Your task to perform on an android device: Set the phone to "Do not disturb". Image 0: 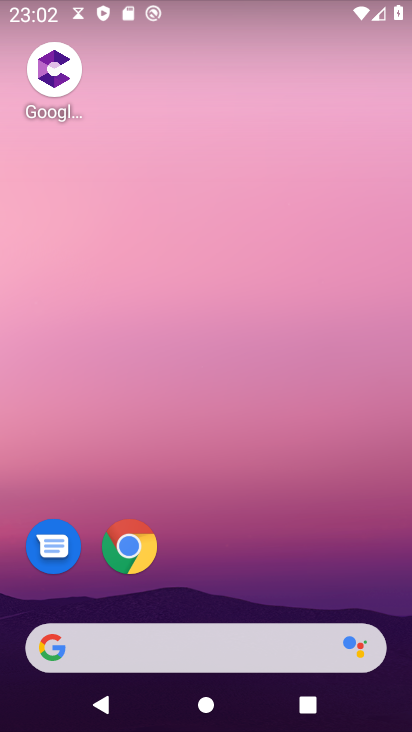
Step 0: drag from (231, 444) to (227, 49)
Your task to perform on an android device: Set the phone to "Do not disturb". Image 1: 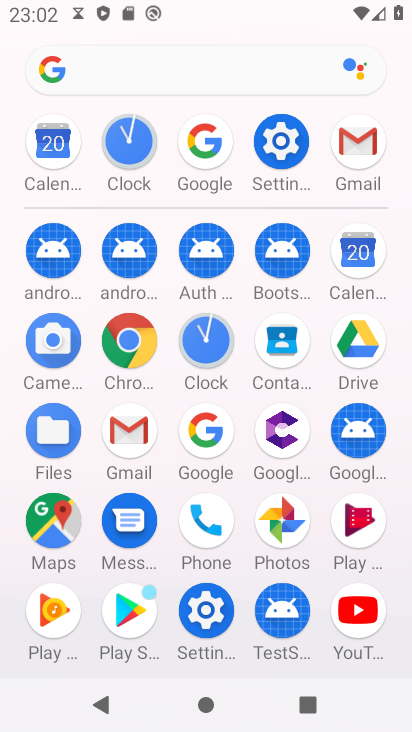
Step 1: click (289, 137)
Your task to perform on an android device: Set the phone to "Do not disturb". Image 2: 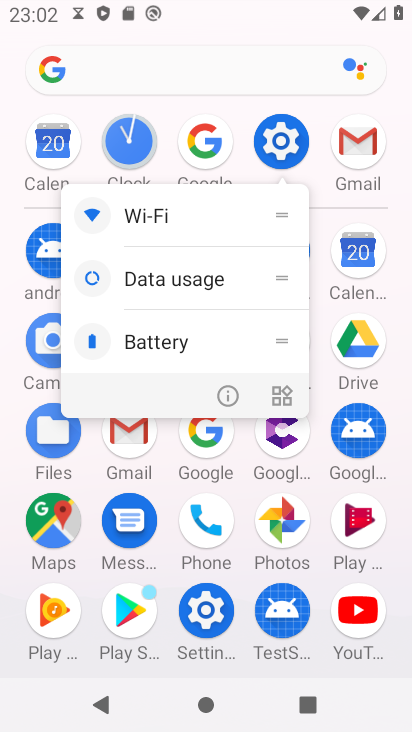
Step 2: click (275, 155)
Your task to perform on an android device: Set the phone to "Do not disturb". Image 3: 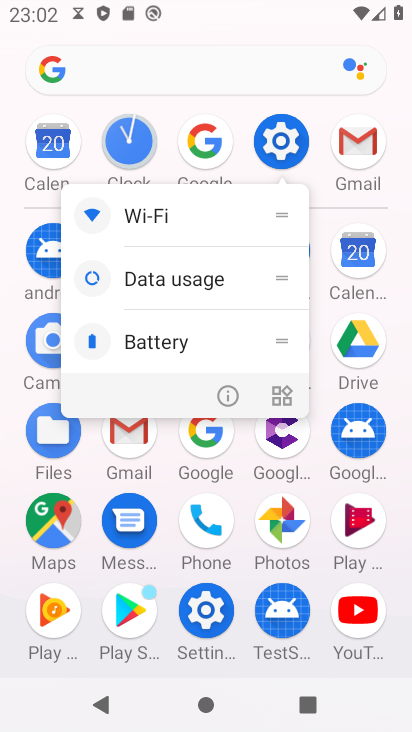
Step 3: click (279, 148)
Your task to perform on an android device: Set the phone to "Do not disturb". Image 4: 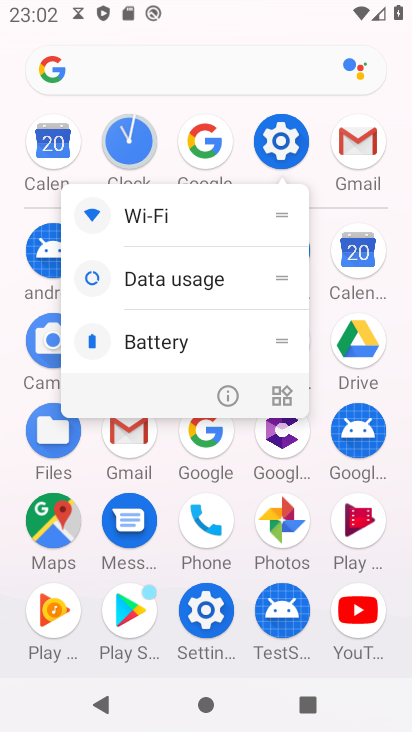
Step 4: click (285, 135)
Your task to perform on an android device: Set the phone to "Do not disturb". Image 5: 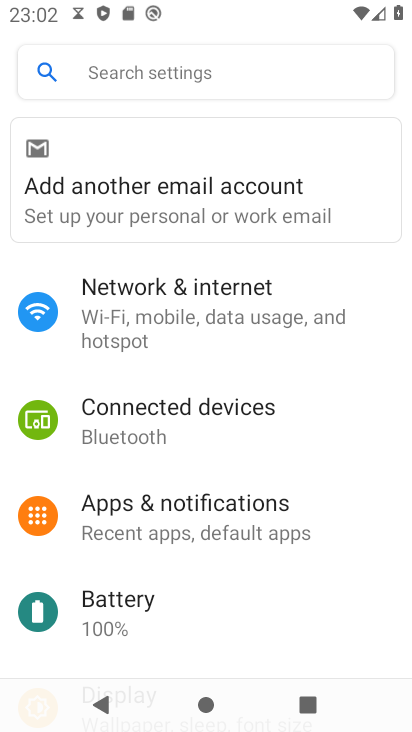
Step 5: drag from (227, 545) to (228, 191)
Your task to perform on an android device: Set the phone to "Do not disturb". Image 6: 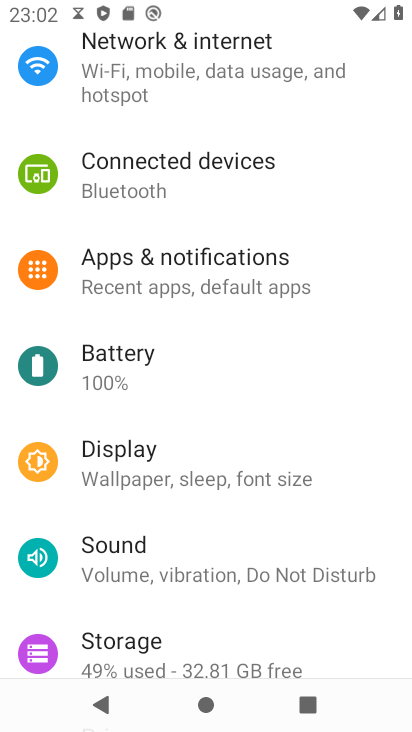
Step 6: click (220, 556)
Your task to perform on an android device: Set the phone to "Do not disturb". Image 7: 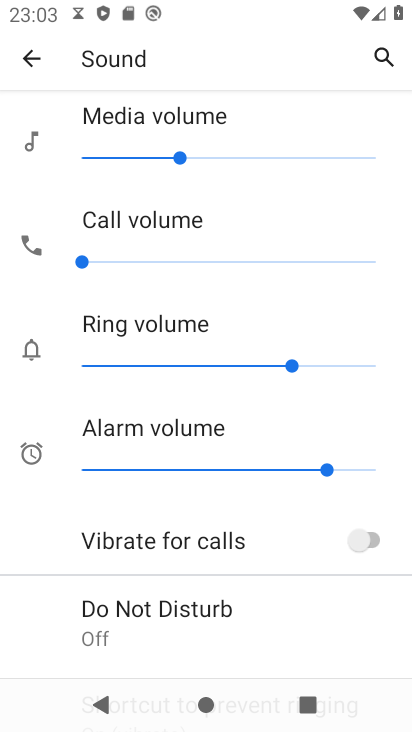
Step 7: click (194, 612)
Your task to perform on an android device: Set the phone to "Do not disturb". Image 8: 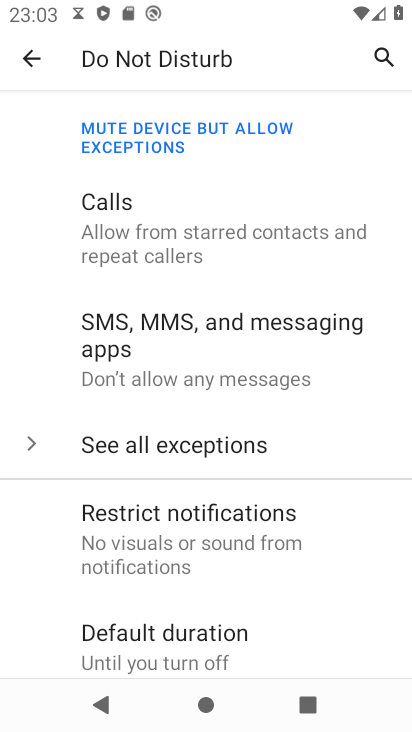
Step 8: drag from (193, 563) to (217, 140)
Your task to perform on an android device: Set the phone to "Do not disturb". Image 9: 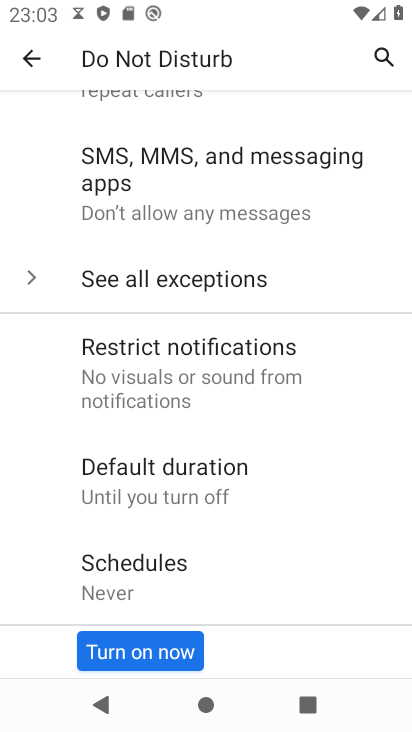
Step 9: click (154, 646)
Your task to perform on an android device: Set the phone to "Do not disturb". Image 10: 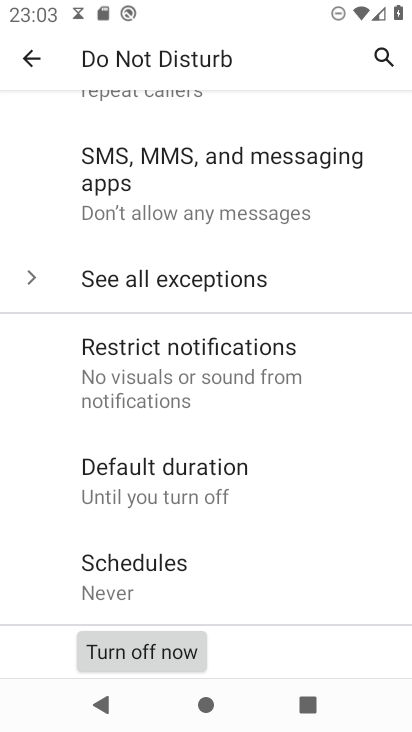
Step 10: task complete